Your task to perform on an android device: clear all cookies in the chrome app Image 0: 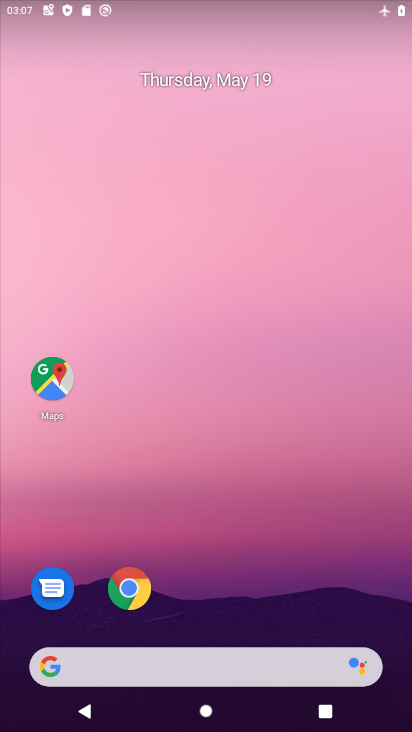
Step 0: click (123, 584)
Your task to perform on an android device: clear all cookies in the chrome app Image 1: 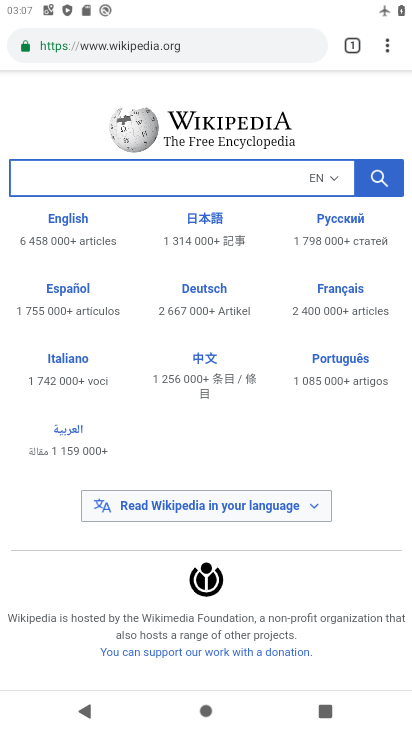
Step 1: click (381, 49)
Your task to perform on an android device: clear all cookies in the chrome app Image 2: 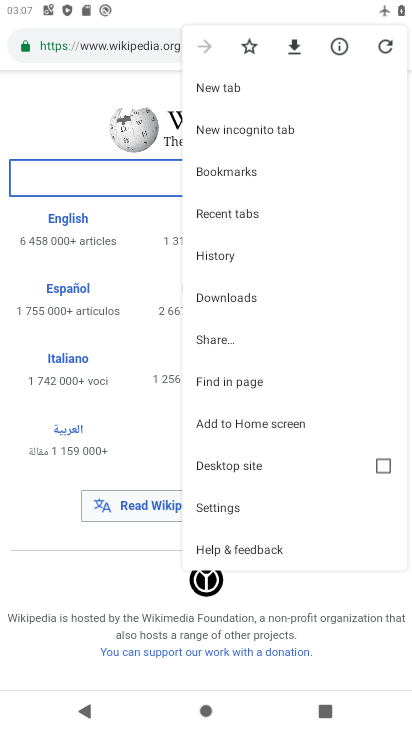
Step 2: click (237, 503)
Your task to perform on an android device: clear all cookies in the chrome app Image 3: 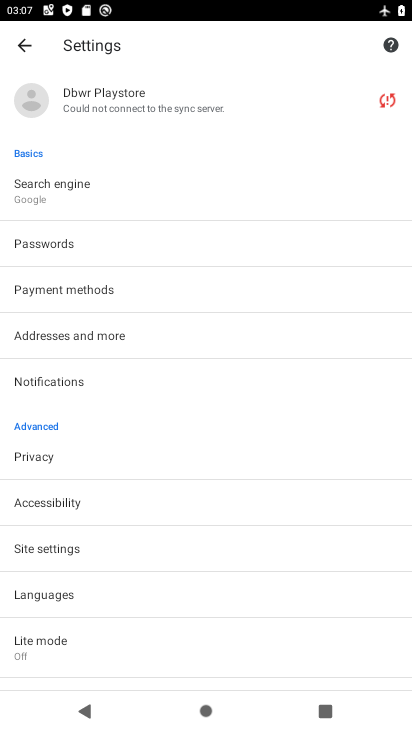
Step 3: click (87, 548)
Your task to perform on an android device: clear all cookies in the chrome app Image 4: 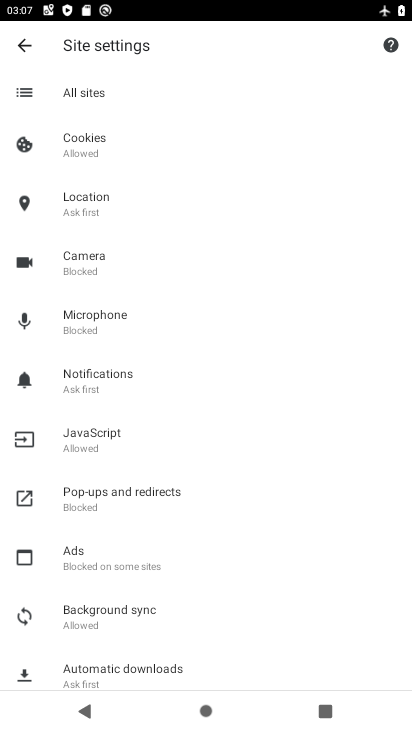
Step 4: click (119, 137)
Your task to perform on an android device: clear all cookies in the chrome app Image 5: 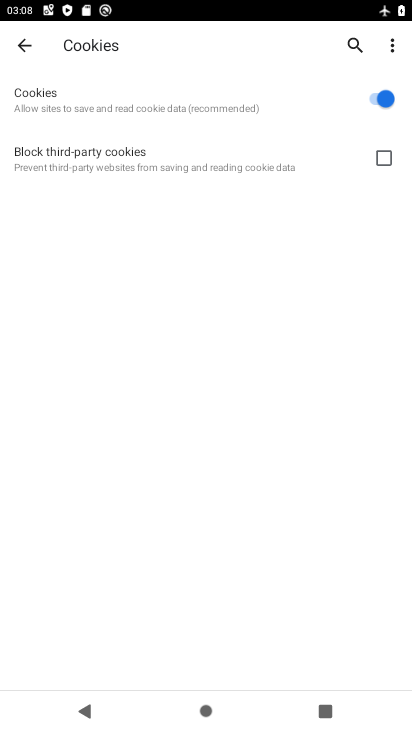
Step 5: task complete